Your task to perform on an android device: set default search engine in the chrome app Image 0: 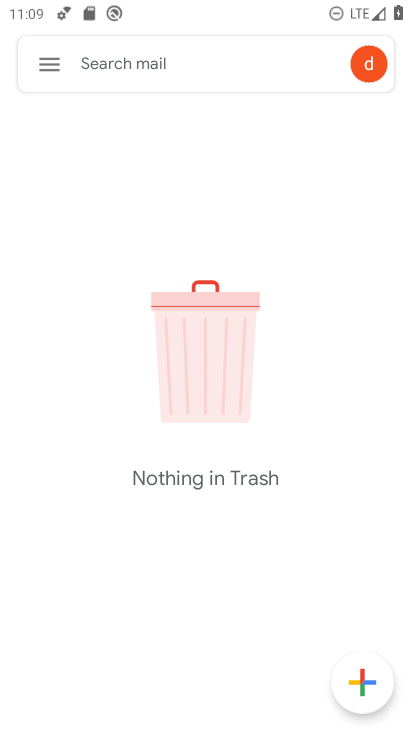
Step 0: press home button
Your task to perform on an android device: set default search engine in the chrome app Image 1: 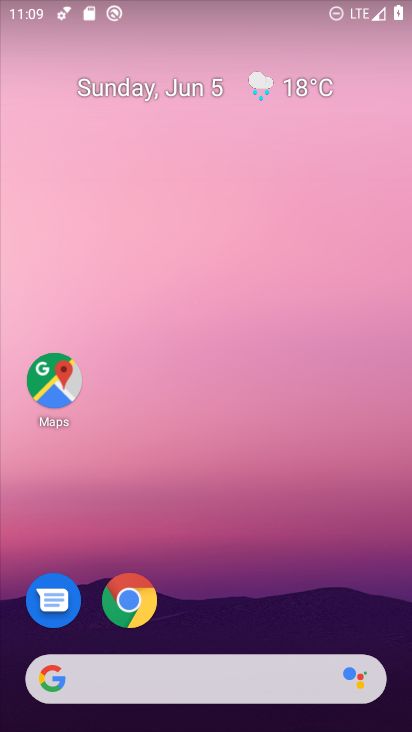
Step 1: click (109, 602)
Your task to perform on an android device: set default search engine in the chrome app Image 2: 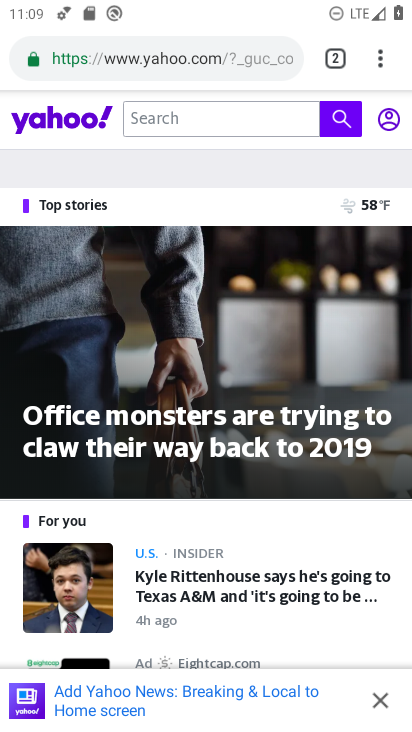
Step 2: drag from (375, 55) to (192, 633)
Your task to perform on an android device: set default search engine in the chrome app Image 3: 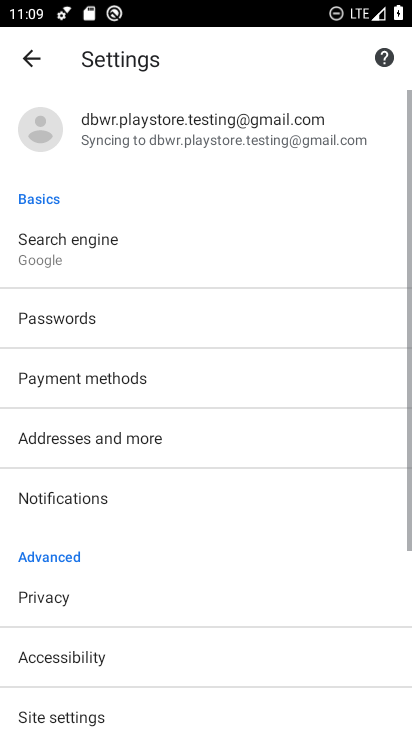
Step 3: click (80, 253)
Your task to perform on an android device: set default search engine in the chrome app Image 4: 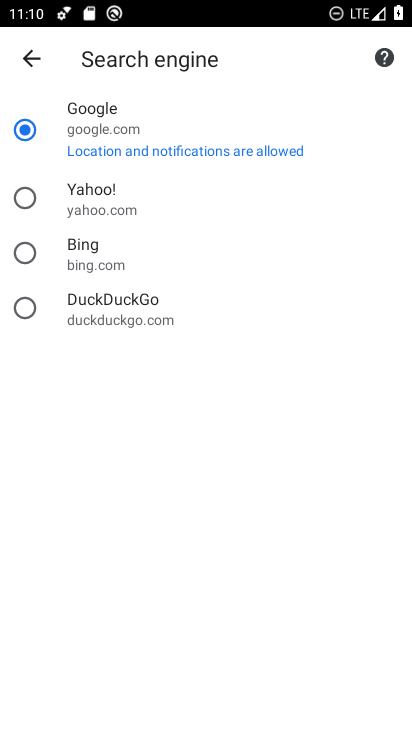
Step 4: click (33, 194)
Your task to perform on an android device: set default search engine in the chrome app Image 5: 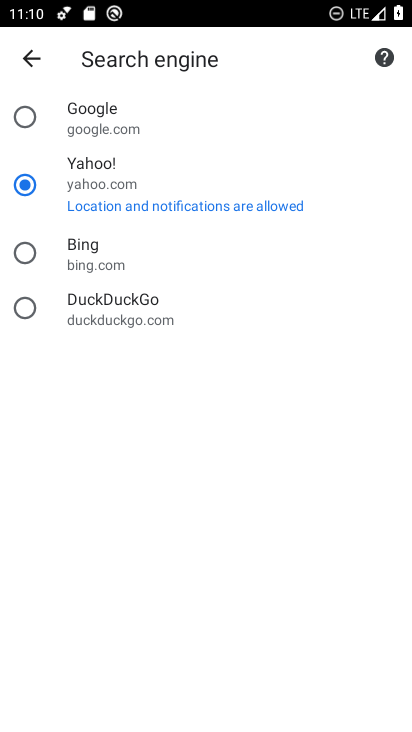
Step 5: task complete